Your task to perform on an android device: Open Maps and search for coffee Image 0: 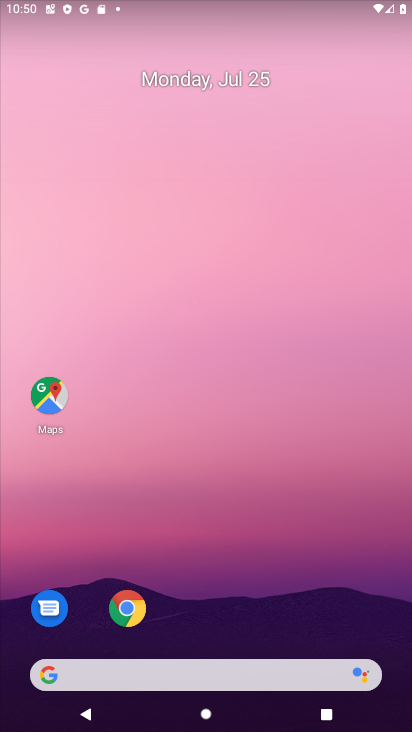
Step 0: drag from (241, 640) to (278, 169)
Your task to perform on an android device: Open Maps and search for coffee Image 1: 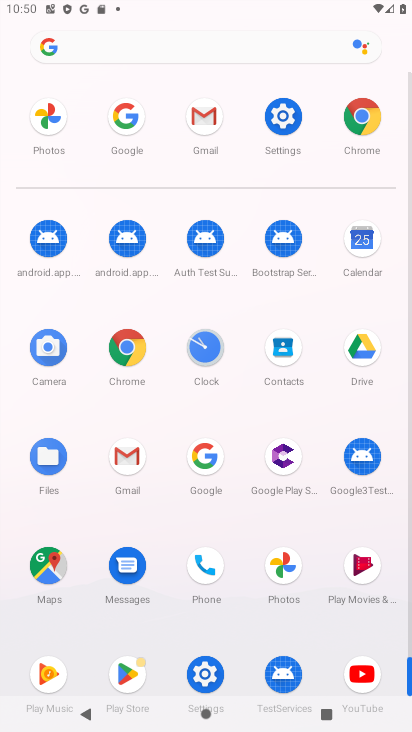
Step 1: click (37, 580)
Your task to perform on an android device: Open Maps and search for coffee Image 2: 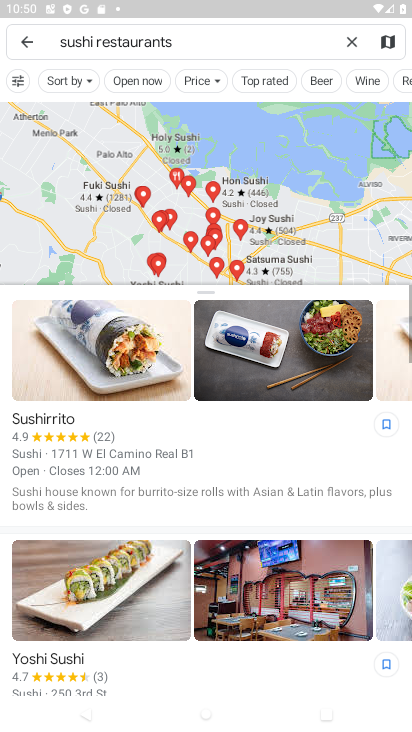
Step 2: click (344, 42)
Your task to perform on an android device: Open Maps and search for coffee Image 3: 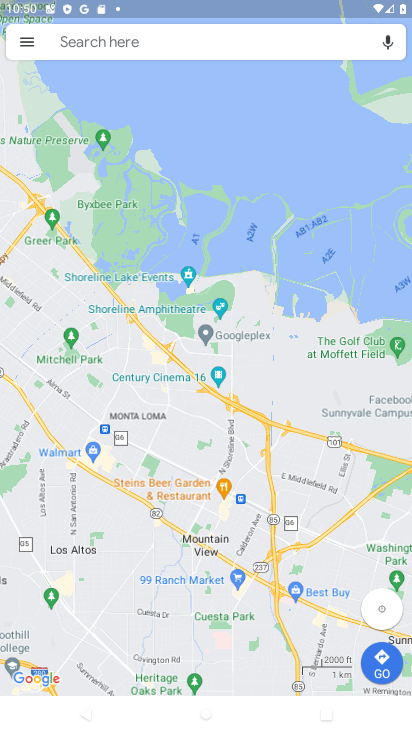
Step 3: click (254, 45)
Your task to perform on an android device: Open Maps and search for coffee Image 4: 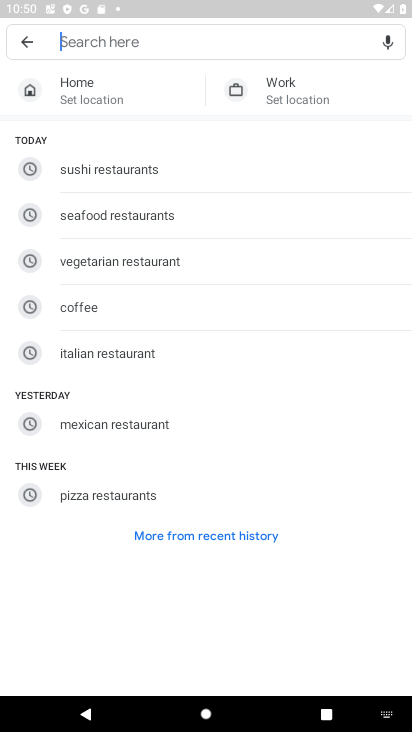
Step 4: click (122, 309)
Your task to perform on an android device: Open Maps and search for coffee Image 5: 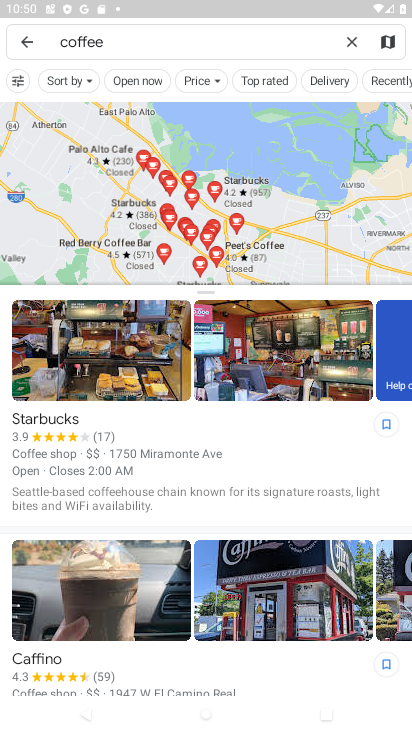
Step 5: task complete